Your task to perform on an android device: What's on my calendar today? Image 0: 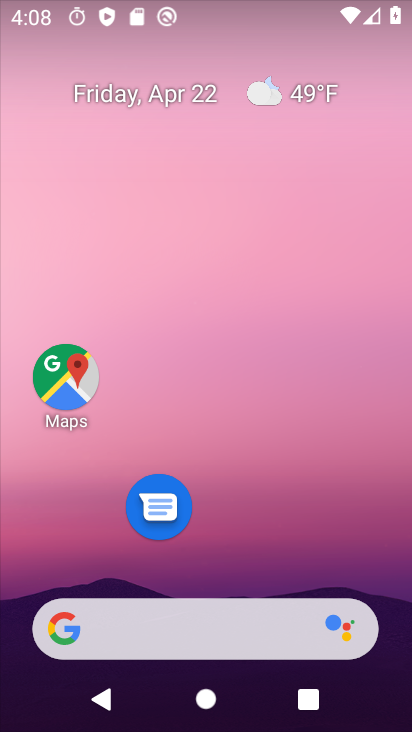
Step 0: drag from (245, 522) to (281, 60)
Your task to perform on an android device: What's on my calendar today? Image 1: 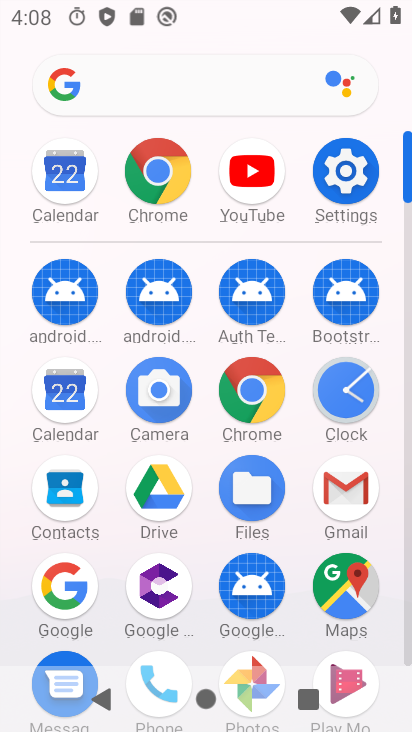
Step 1: click (60, 390)
Your task to perform on an android device: What's on my calendar today? Image 2: 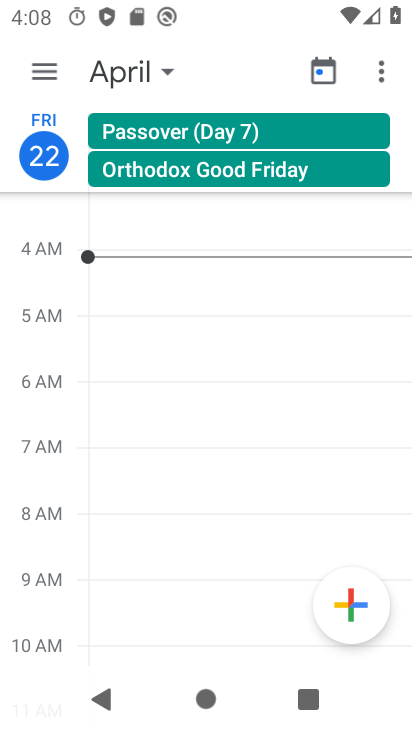
Step 2: click (48, 66)
Your task to perform on an android device: What's on my calendar today? Image 3: 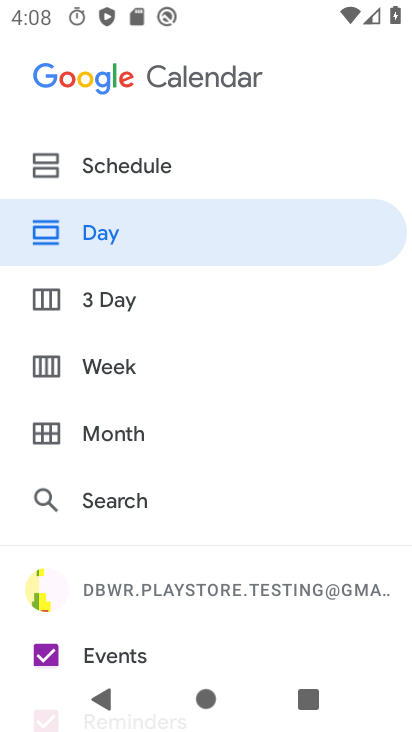
Step 3: click (99, 169)
Your task to perform on an android device: What's on my calendar today? Image 4: 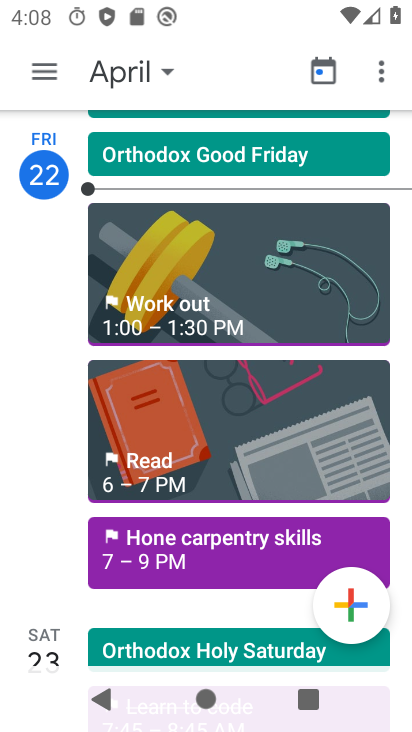
Step 4: drag from (292, 220) to (244, 557)
Your task to perform on an android device: What's on my calendar today? Image 5: 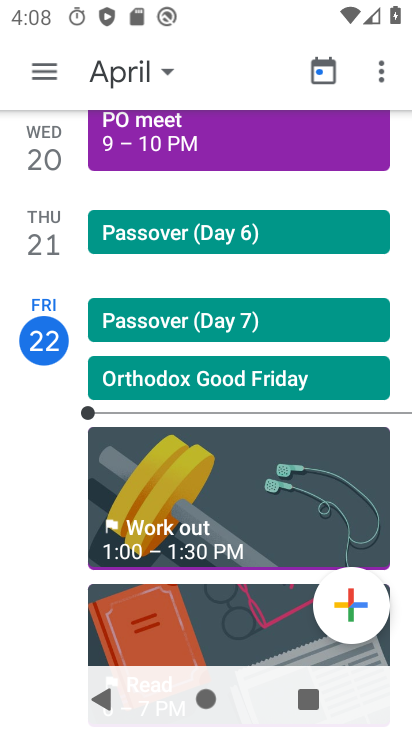
Step 5: drag from (217, 559) to (272, 181)
Your task to perform on an android device: What's on my calendar today? Image 6: 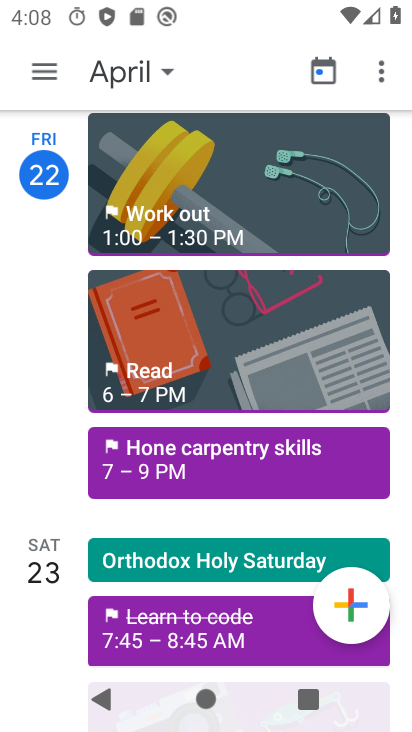
Step 6: drag from (213, 517) to (273, 180)
Your task to perform on an android device: What's on my calendar today? Image 7: 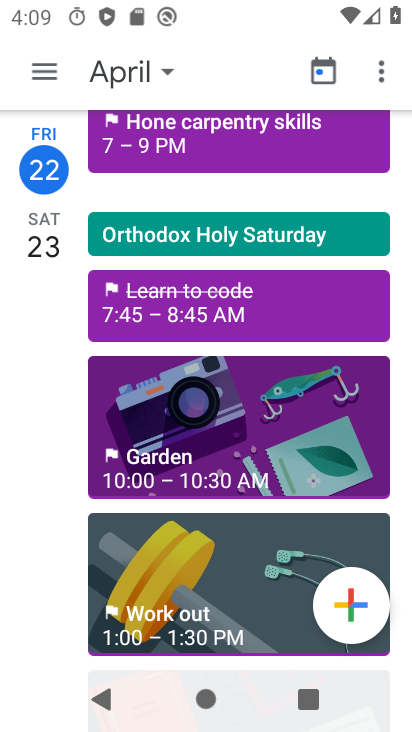
Step 7: drag from (200, 581) to (305, 430)
Your task to perform on an android device: What's on my calendar today? Image 8: 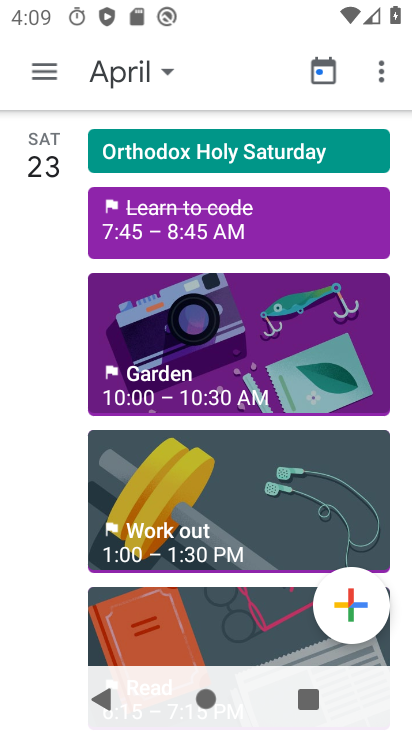
Step 8: drag from (220, 273) to (205, 664)
Your task to perform on an android device: What's on my calendar today? Image 9: 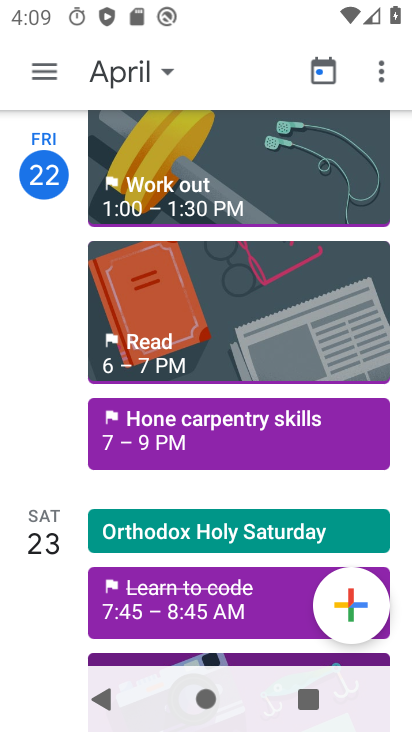
Step 9: drag from (201, 420) to (171, 613)
Your task to perform on an android device: What's on my calendar today? Image 10: 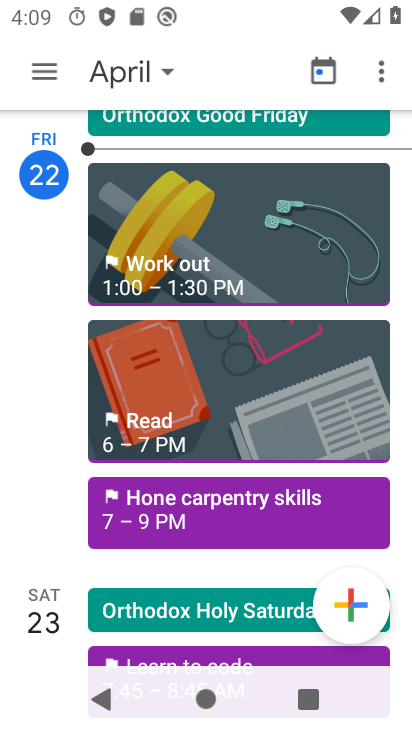
Step 10: drag from (186, 342) to (147, 575)
Your task to perform on an android device: What's on my calendar today? Image 11: 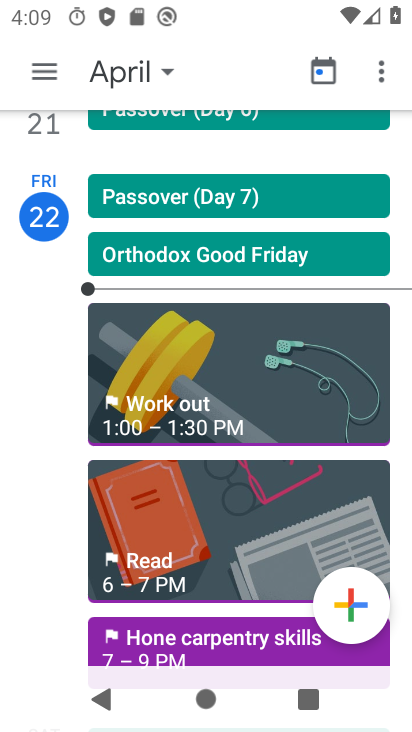
Step 11: click (141, 381)
Your task to perform on an android device: What's on my calendar today? Image 12: 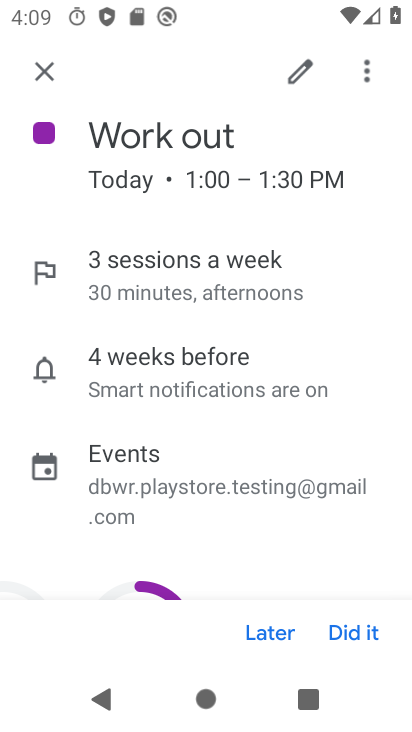
Step 12: task complete